Your task to perform on an android device: Open privacy settings Image 0: 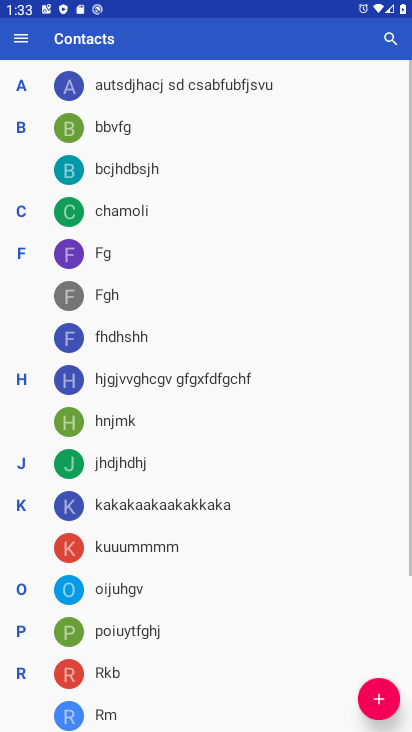
Step 0: press home button
Your task to perform on an android device: Open privacy settings Image 1: 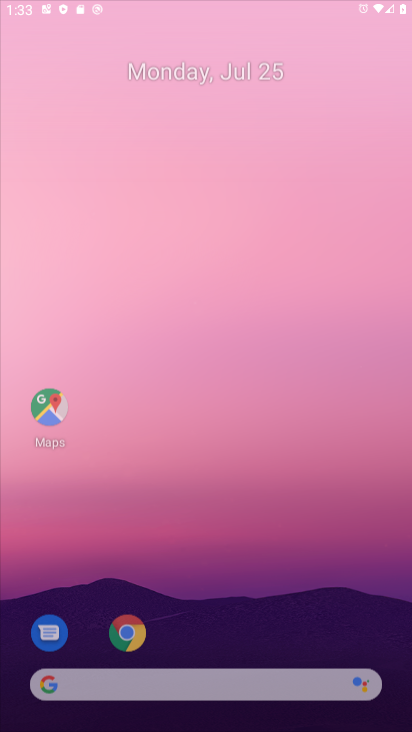
Step 1: drag from (330, 630) to (181, 87)
Your task to perform on an android device: Open privacy settings Image 2: 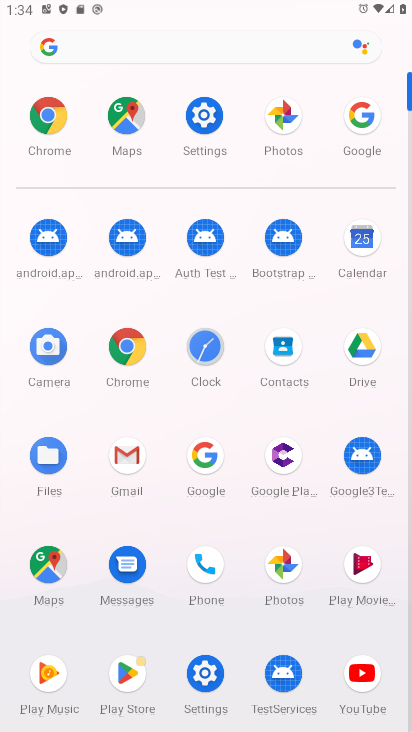
Step 2: click (201, 666)
Your task to perform on an android device: Open privacy settings Image 3: 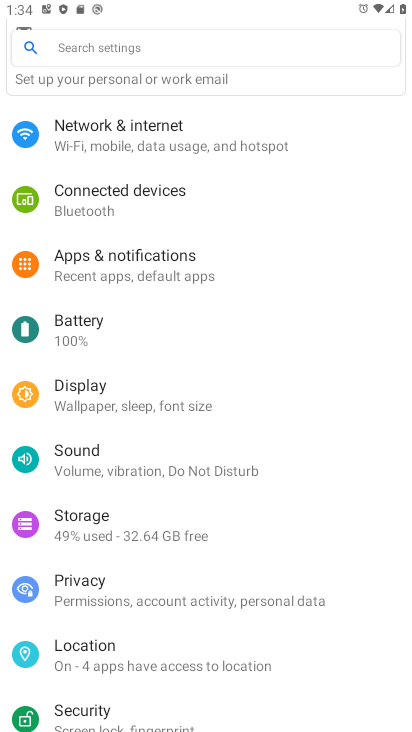
Step 3: click (97, 596)
Your task to perform on an android device: Open privacy settings Image 4: 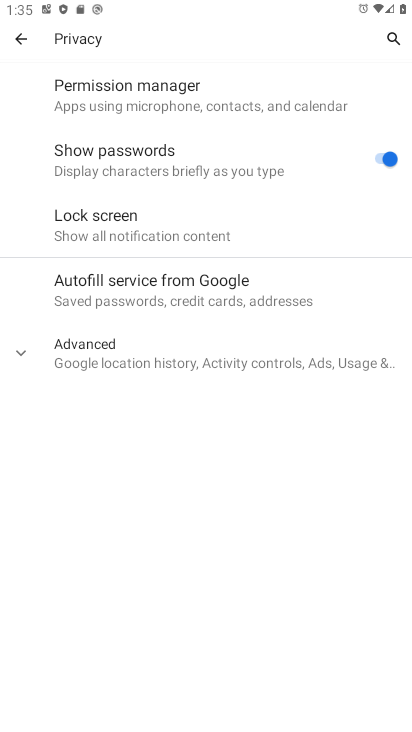
Step 4: task complete